Your task to perform on an android device: uninstall "Facebook" Image 0: 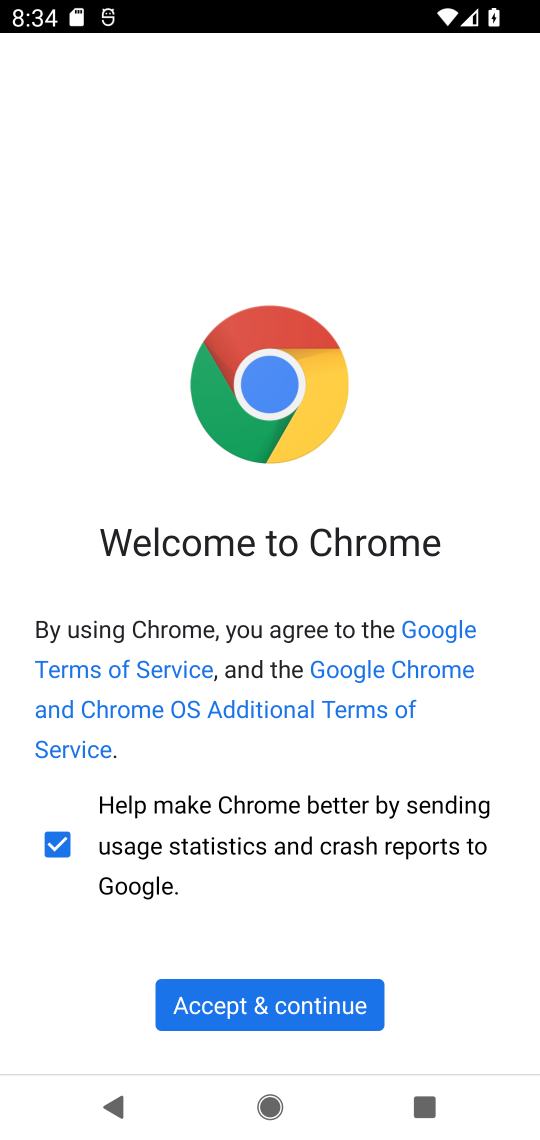
Step 0: press home button
Your task to perform on an android device: uninstall "Facebook" Image 1: 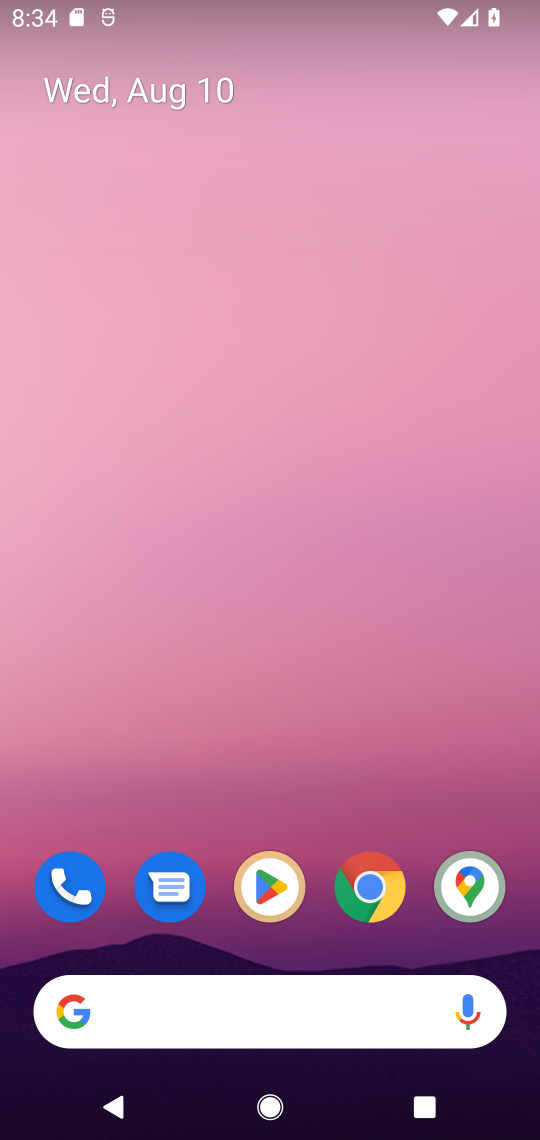
Step 1: drag from (208, 954) to (281, 174)
Your task to perform on an android device: uninstall "Facebook" Image 2: 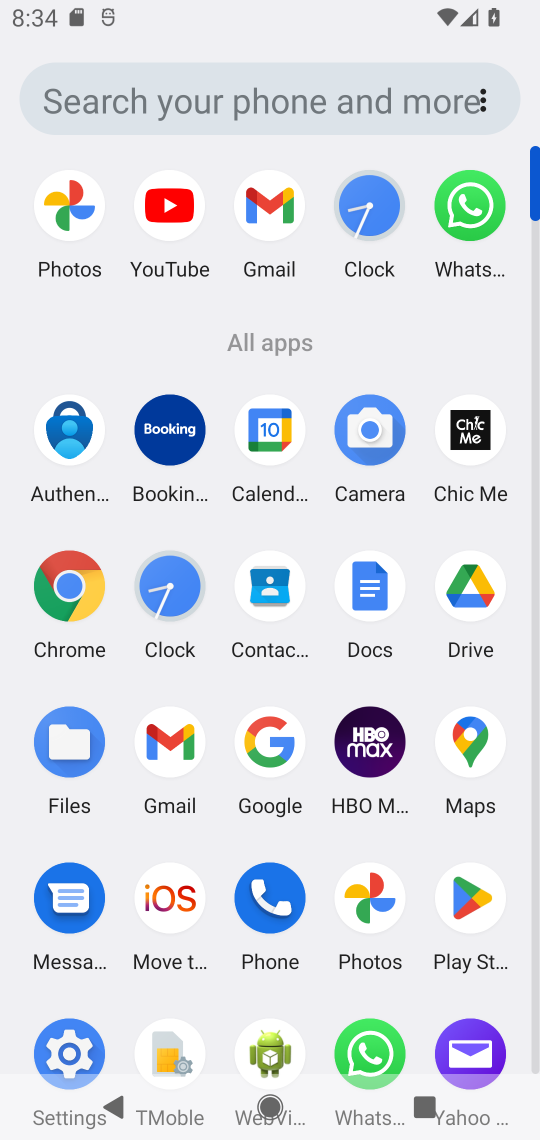
Step 2: click (532, 1068)
Your task to perform on an android device: uninstall "Facebook" Image 3: 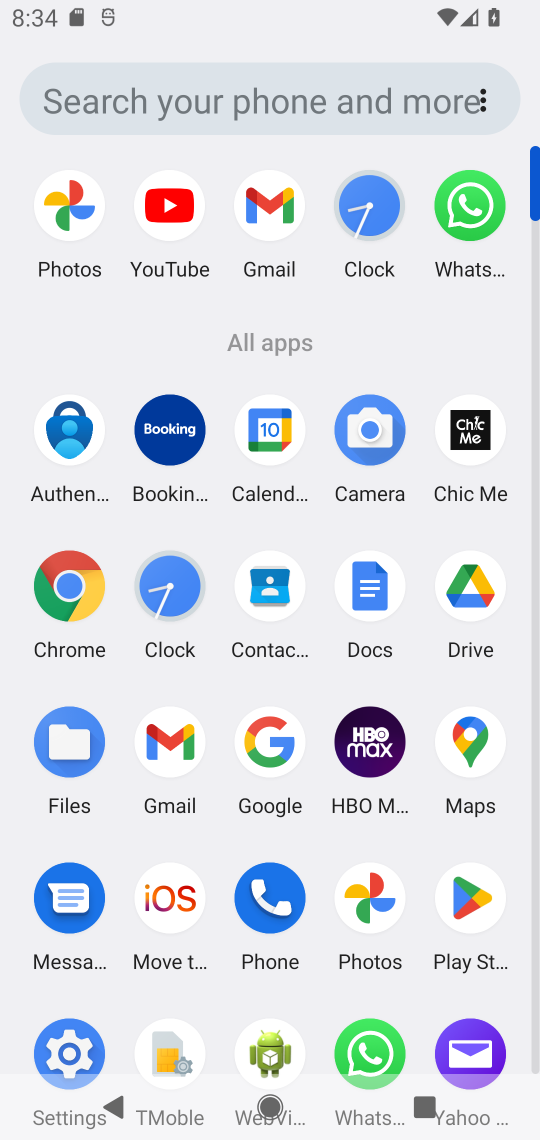
Step 3: click (532, 1068)
Your task to perform on an android device: uninstall "Facebook" Image 4: 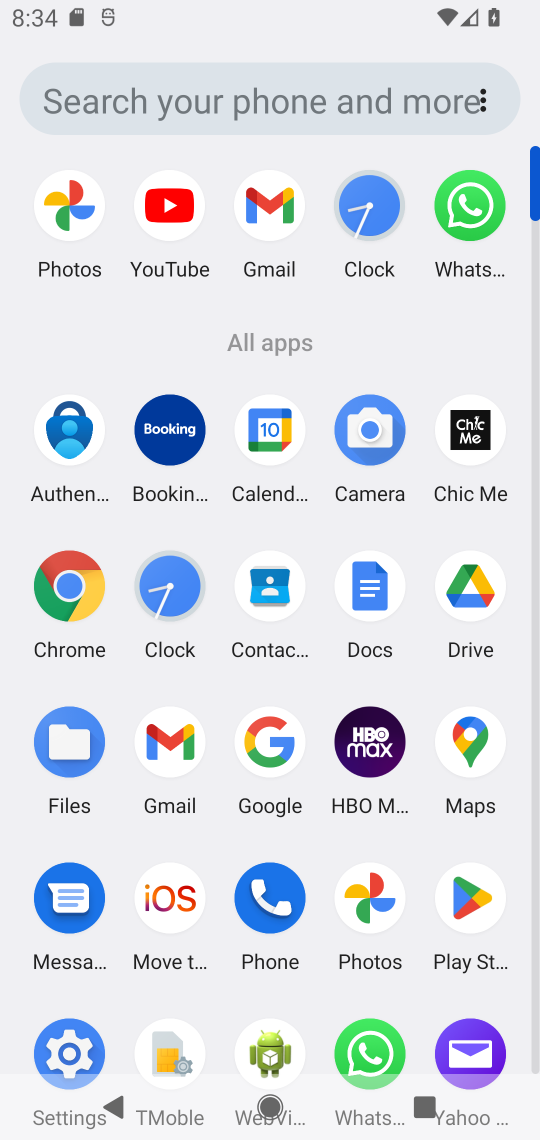
Step 4: click (539, 1077)
Your task to perform on an android device: uninstall "Facebook" Image 5: 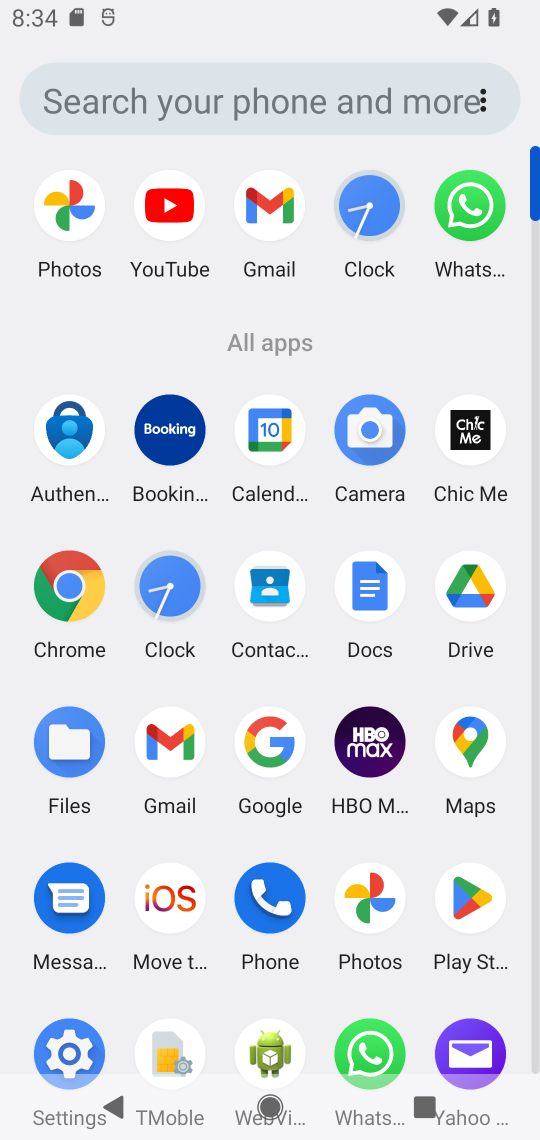
Step 5: click (532, 1065)
Your task to perform on an android device: uninstall "Facebook" Image 6: 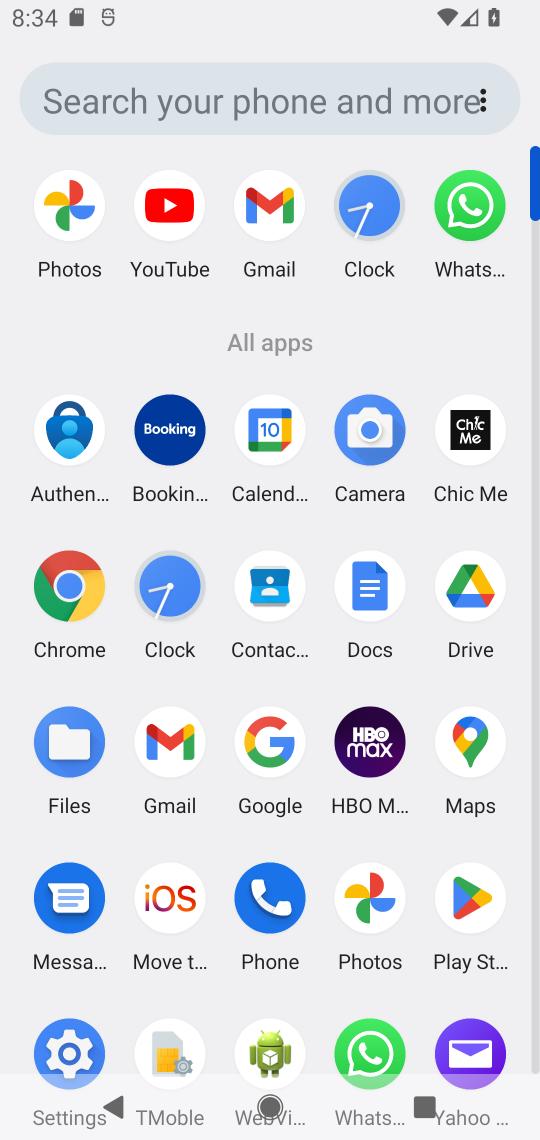
Step 6: click (532, 1065)
Your task to perform on an android device: uninstall "Facebook" Image 7: 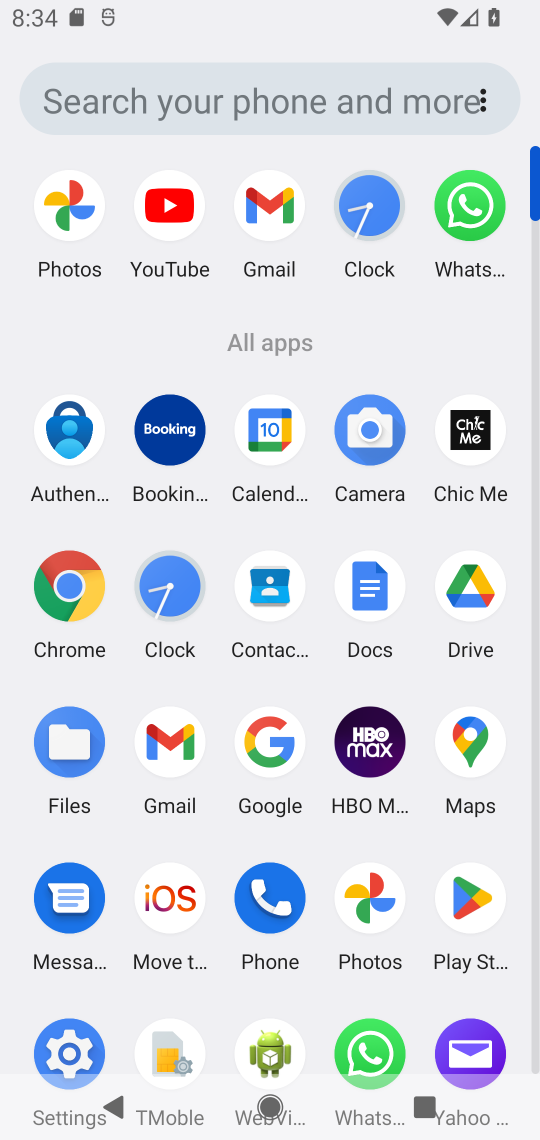
Step 7: click (532, 1065)
Your task to perform on an android device: uninstall "Facebook" Image 8: 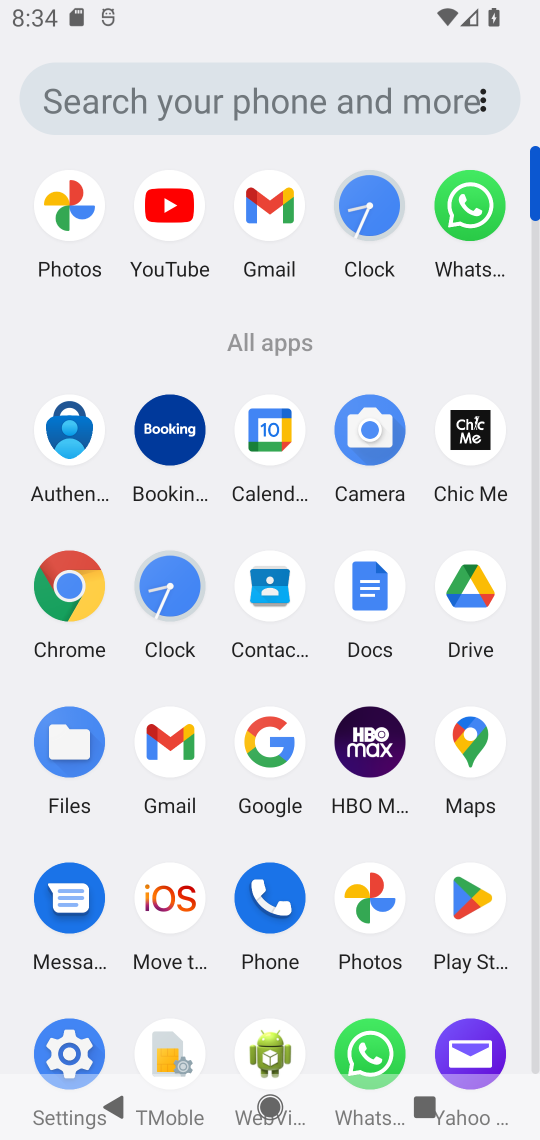
Step 8: drag from (538, 292) to (528, 570)
Your task to perform on an android device: uninstall "Facebook" Image 9: 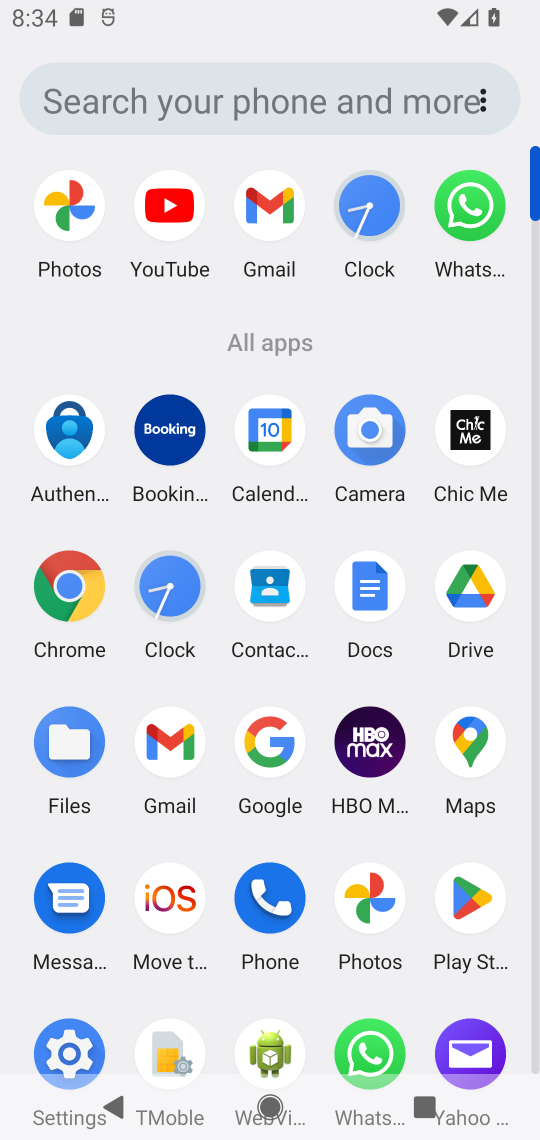
Step 9: click (535, 199)
Your task to perform on an android device: uninstall "Facebook" Image 10: 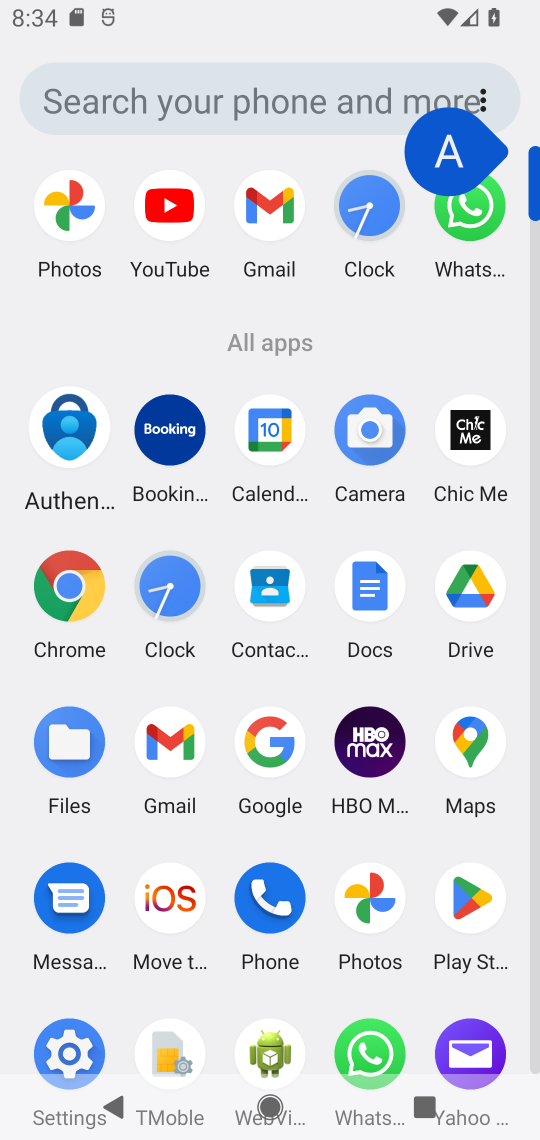
Step 10: drag from (535, 201) to (520, 487)
Your task to perform on an android device: uninstall "Facebook" Image 11: 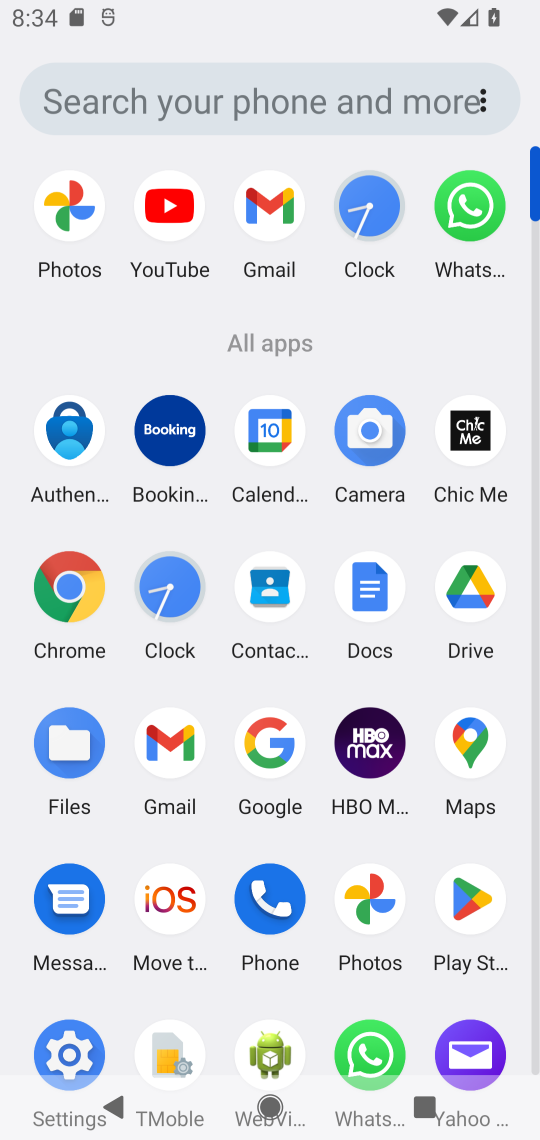
Step 11: drag from (532, 199) to (536, 556)
Your task to perform on an android device: uninstall "Facebook" Image 12: 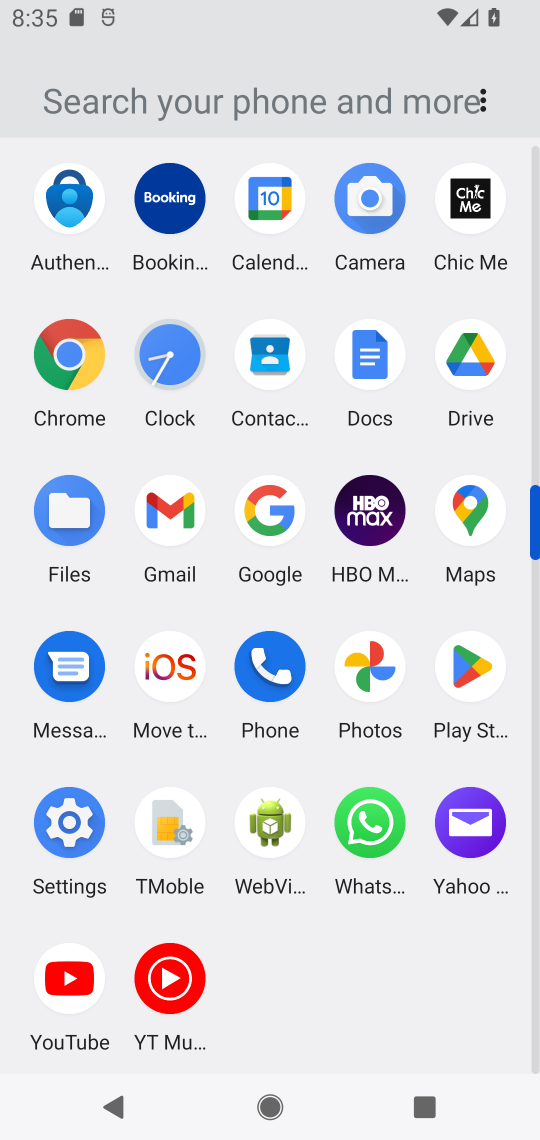
Step 12: click (255, 91)
Your task to perform on an android device: uninstall "Facebook" Image 13: 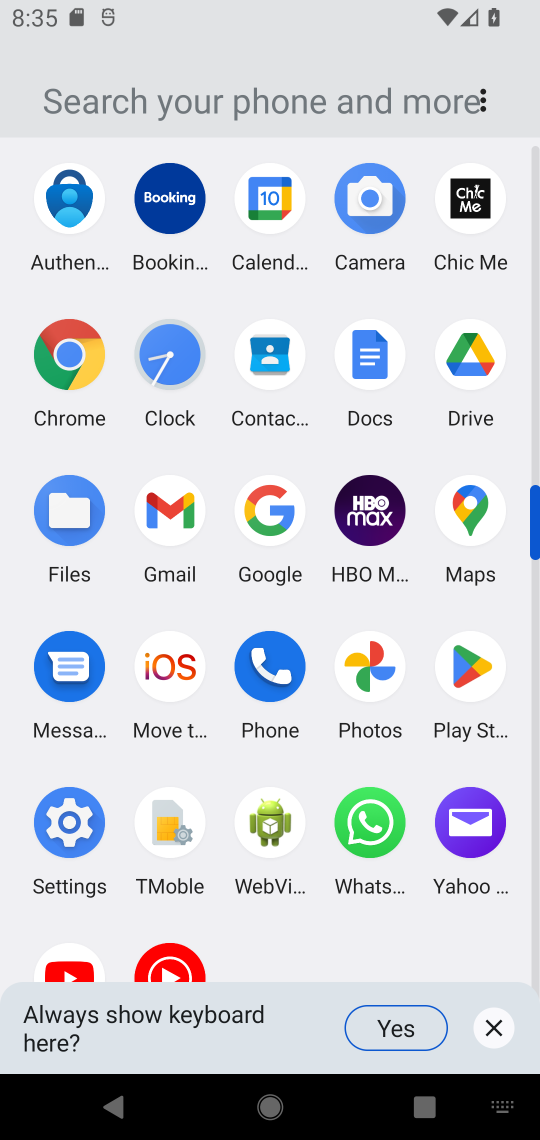
Step 13: type "facebook"
Your task to perform on an android device: uninstall "Facebook" Image 14: 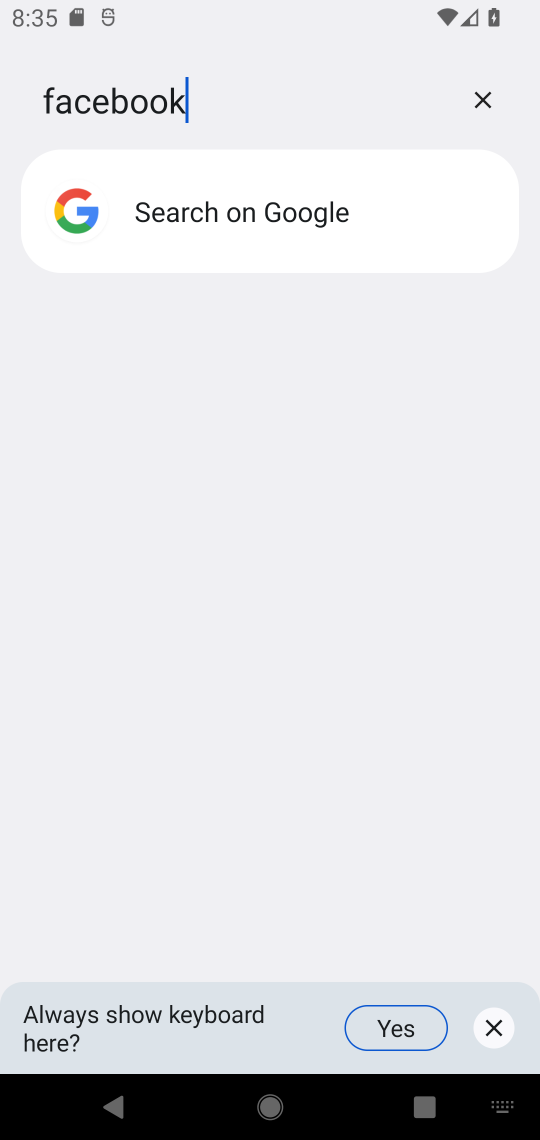
Step 14: task complete